Your task to perform on an android device: change the clock display to digital Image 0: 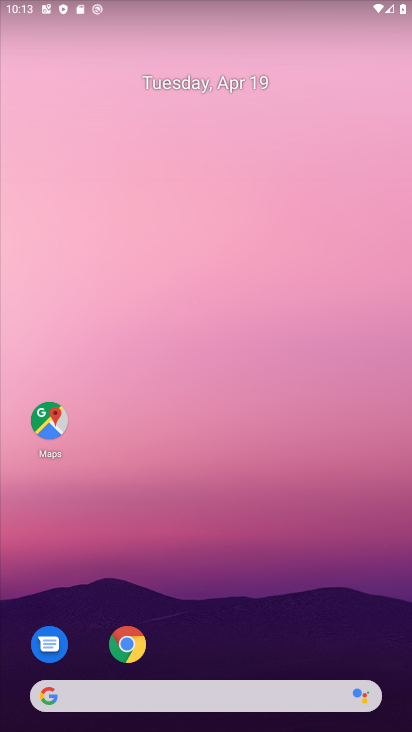
Step 0: drag from (258, 649) to (161, 43)
Your task to perform on an android device: change the clock display to digital Image 1: 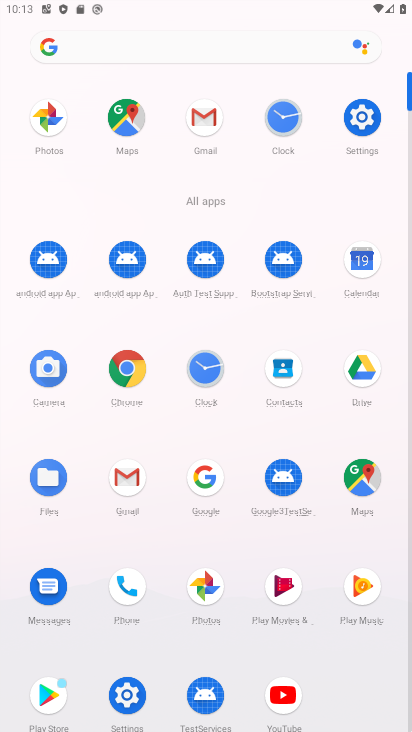
Step 1: click (214, 371)
Your task to perform on an android device: change the clock display to digital Image 2: 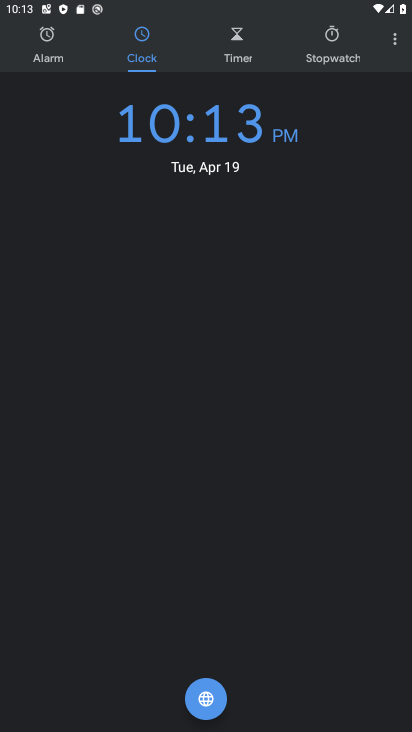
Step 2: click (393, 43)
Your task to perform on an android device: change the clock display to digital Image 3: 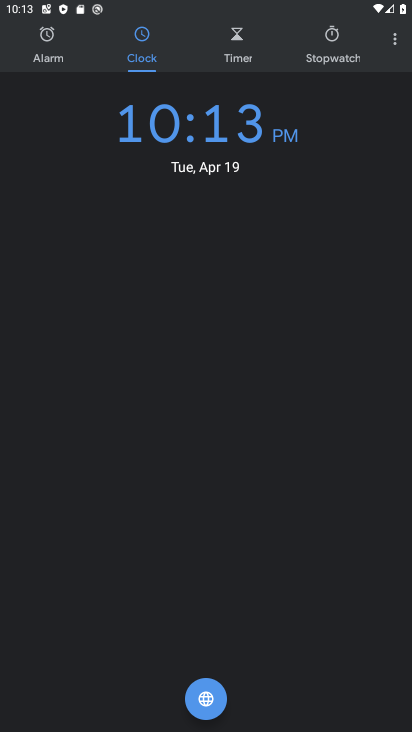
Step 3: click (399, 41)
Your task to perform on an android device: change the clock display to digital Image 4: 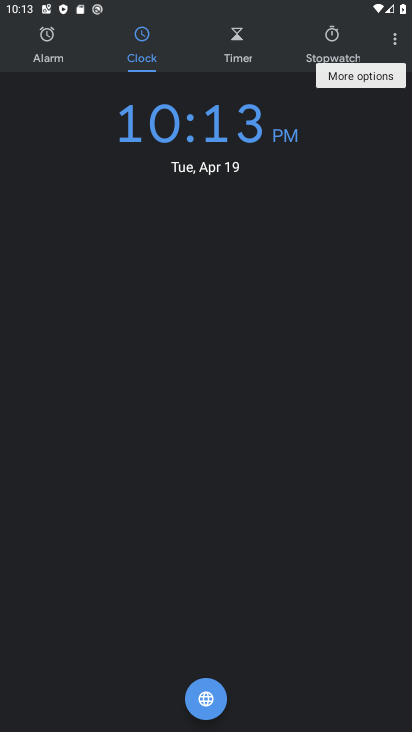
Step 4: click (397, 40)
Your task to perform on an android device: change the clock display to digital Image 5: 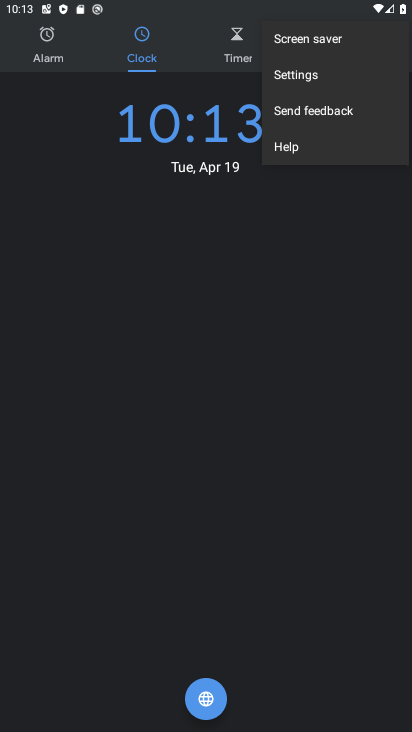
Step 5: click (342, 83)
Your task to perform on an android device: change the clock display to digital Image 6: 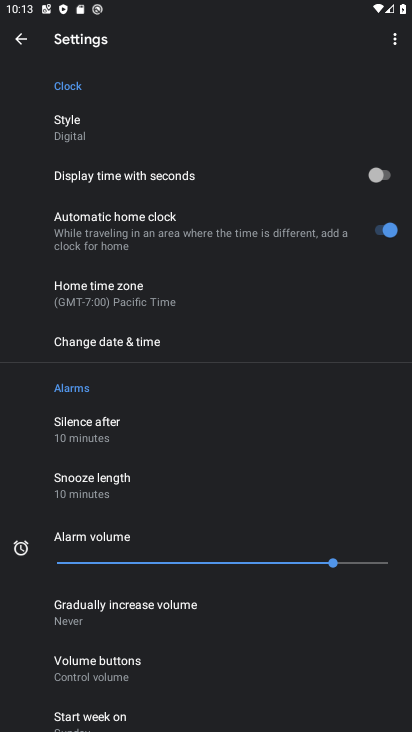
Step 6: click (74, 128)
Your task to perform on an android device: change the clock display to digital Image 7: 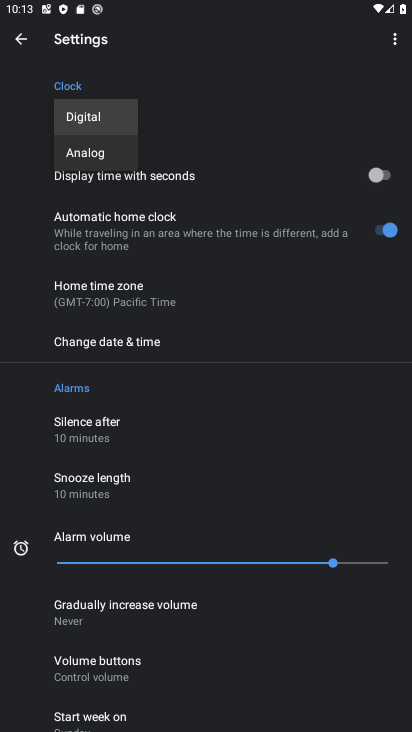
Step 7: click (78, 116)
Your task to perform on an android device: change the clock display to digital Image 8: 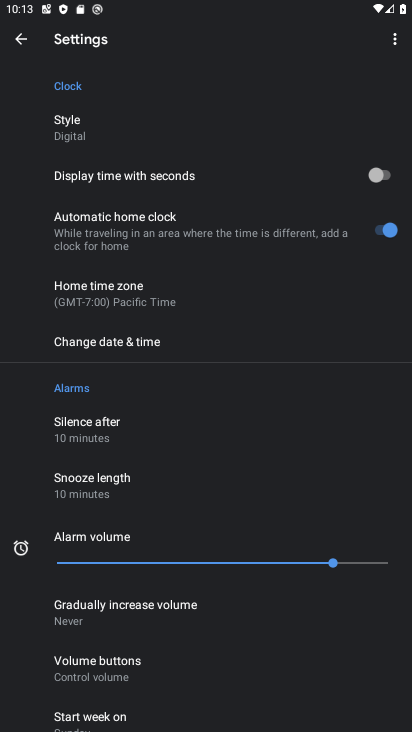
Step 8: task complete